Your task to perform on an android device: turn vacation reply on in the gmail app Image 0: 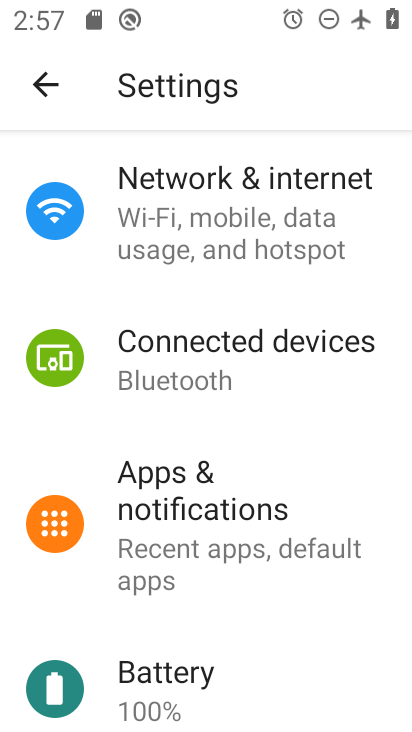
Step 0: press home button
Your task to perform on an android device: turn vacation reply on in the gmail app Image 1: 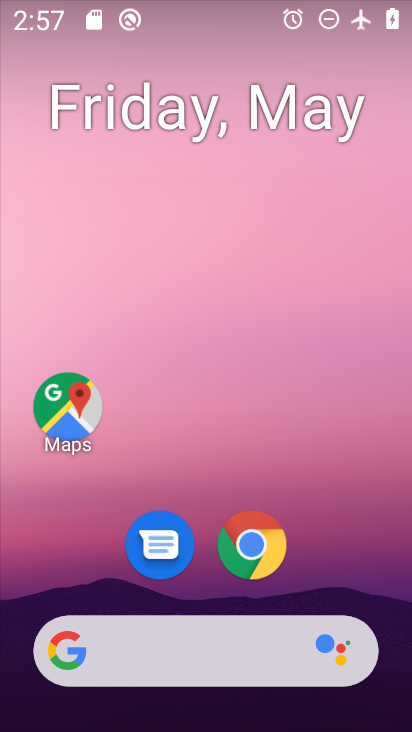
Step 1: drag from (336, 548) to (339, 267)
Your task to perform on an android device: turn vacation reply on in the gmail app Image 2: 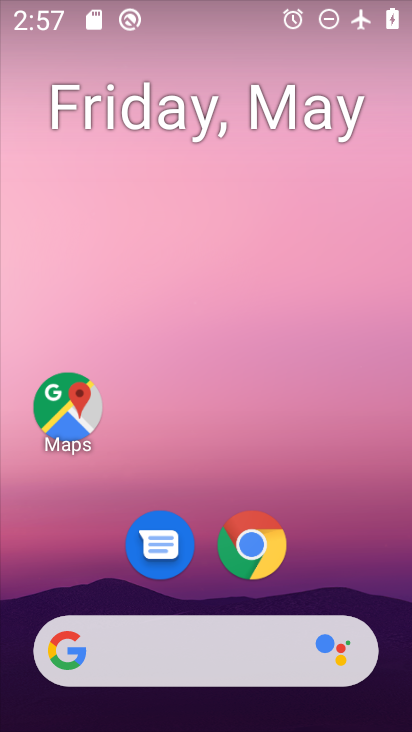
Step 2: drag from (279, 554) to (305, 284)
Your task to perform on an android device: turn vacation reply on in the gmail app Image 3: 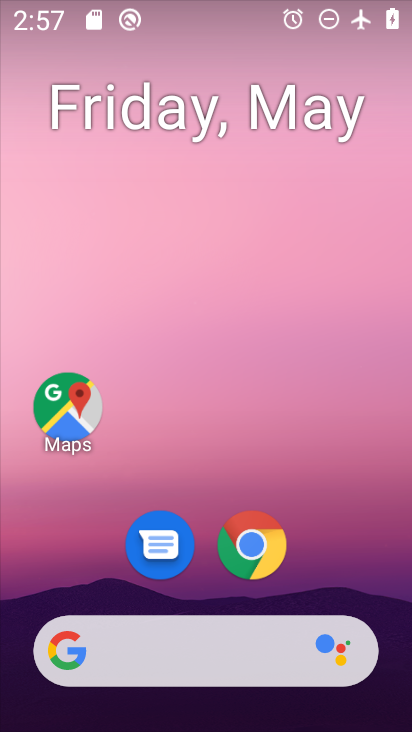
Step 3: drag from (312, 543) to (305, 231)
Your task to perform on an android device: turn vacation reply on in the gmail app Image 4: 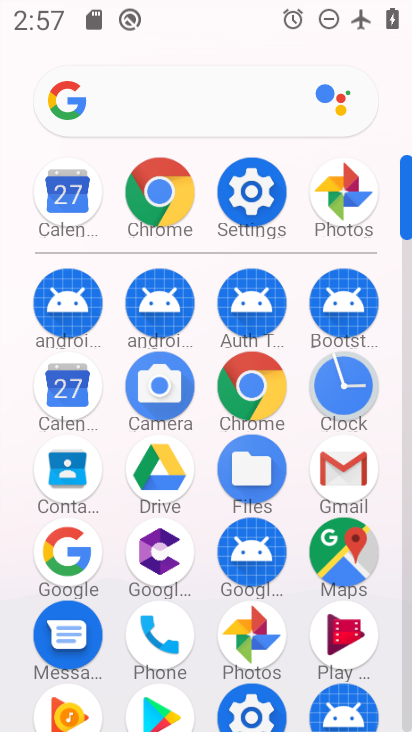
Step 4: click (329, 460)
Your task to perform on an android device: turn vacation reply on in the gmail app Image 5: 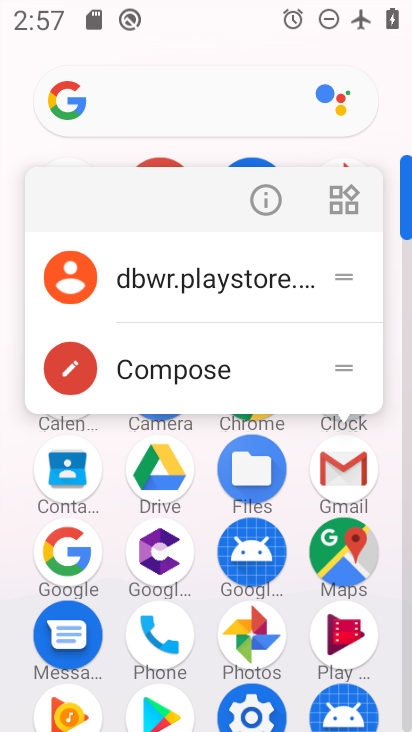
Step 5: click (334, 468)
Your task to perform on an android device: turn vacation reply on in the gmail app Image 6: 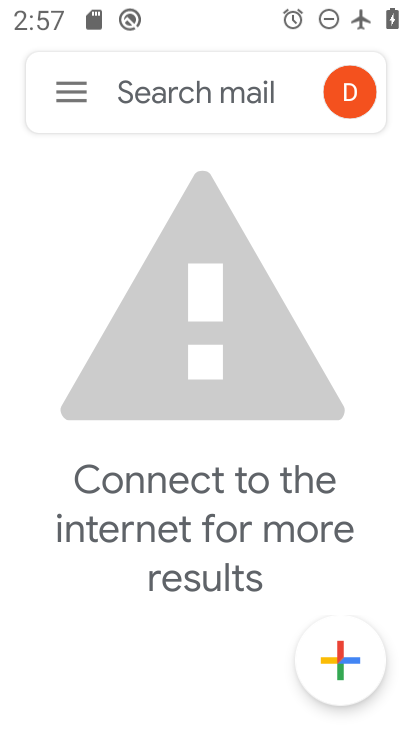
Step 6: click (64, 91)
Your task to perform on an android device: turn vacation reply on in the gmail app Image 7: 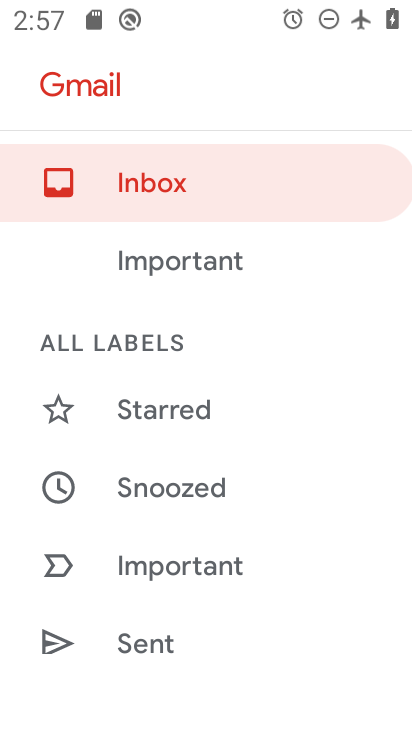
Step 7: drag from (184, 636) to (228, 265)
Your task to perform on an android device: turn vacation reply on in the gmail app Image 8: 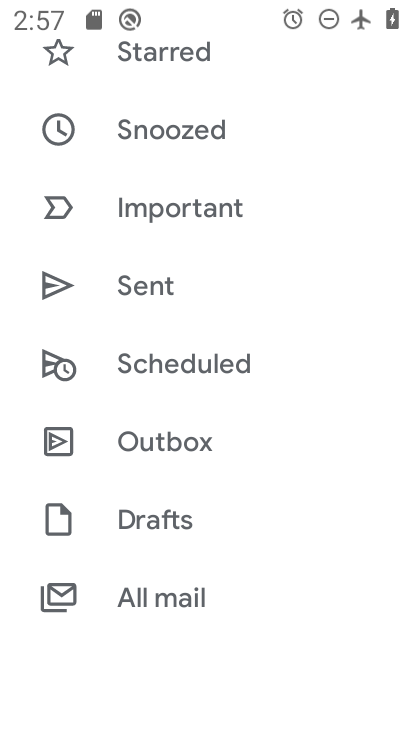
Step 8: drag from (203, 629) to (240, 256)
Your task to perform on an android device: turn vacation reply on in the gmail app Image 9: 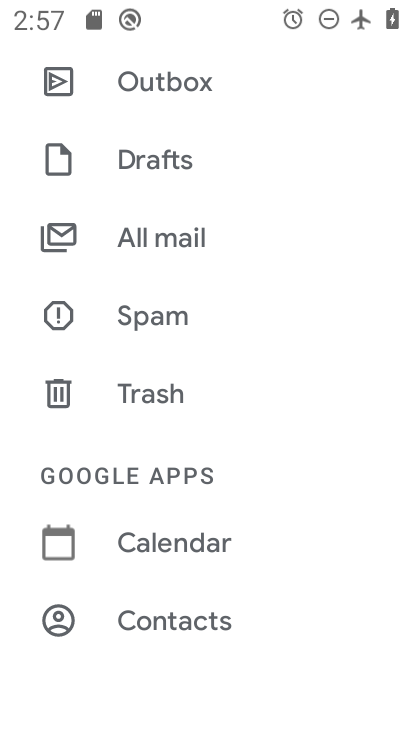
Step 9: drag from (193, 621) to (224, 257)
Your task to perform on an android device: turn vacation reply on in the gmail app Image 10: 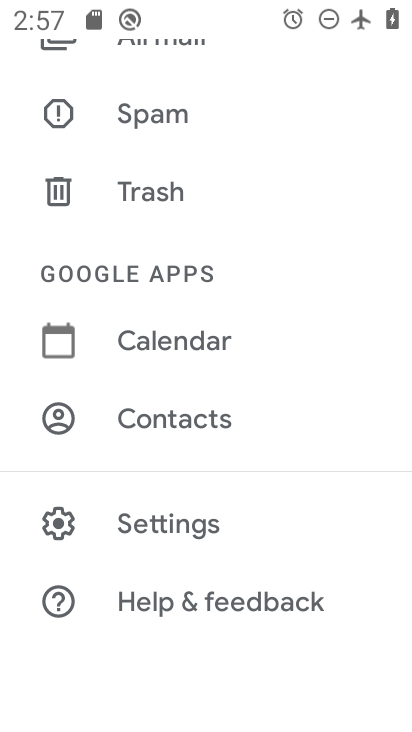
Step 10: click (209, 533)
Your task to perform on an android device: turn vacation reply on in the gmail app Image 11: 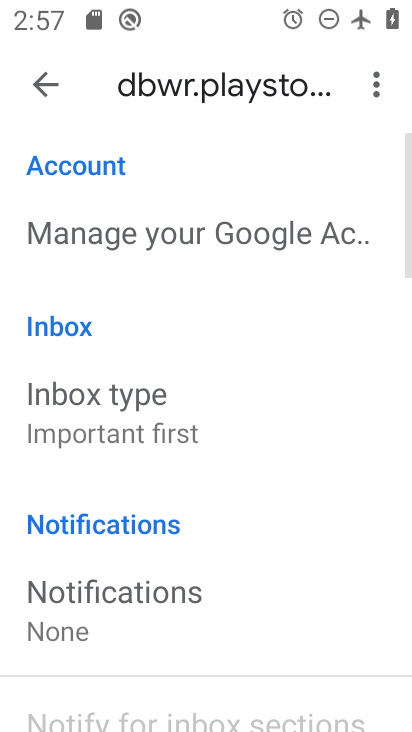
Step 11: drag from (203, 639) to (255, 266)
Your task to perform on an android device: turn vacation reply on in the gmail app Image 12: 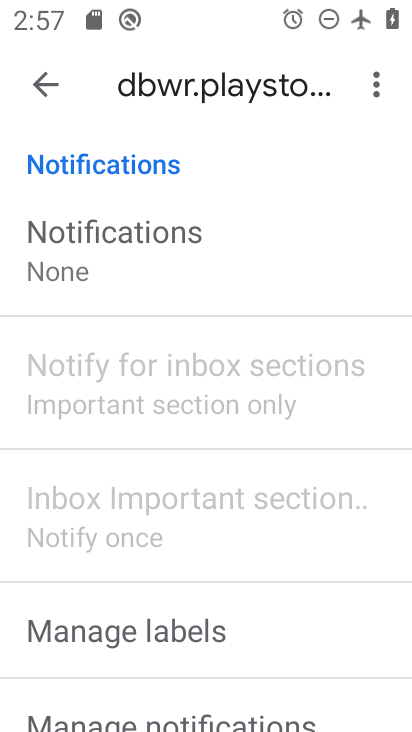
Step 12: drag from (188, 635) to (210, 325)
Your task to perform on an android device: turn vacation reply on in the gmail app Image 13: 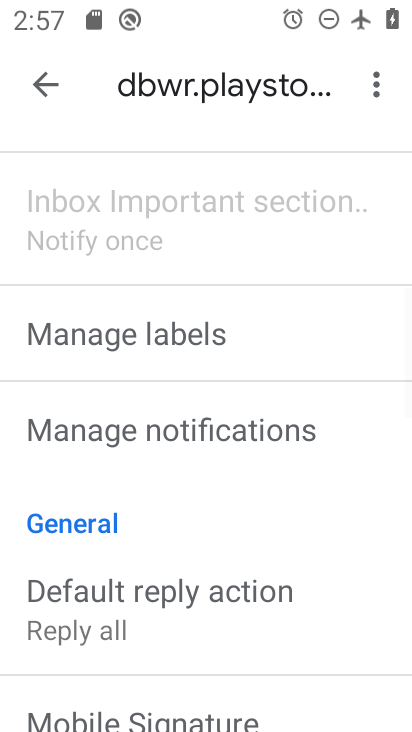
Step 13: drag from (166, 628) to (190, 306)
Your task to perform on an android device: turn vacation reply on in the gmail app Image 14: 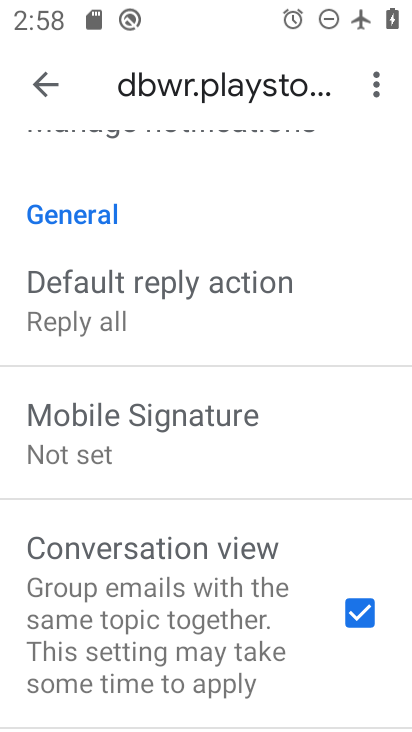
Step 14: drag from (249, 576) to (287, 213)
Your task to perform on an android device: turn vacation reply on in the gmail app Image 15: 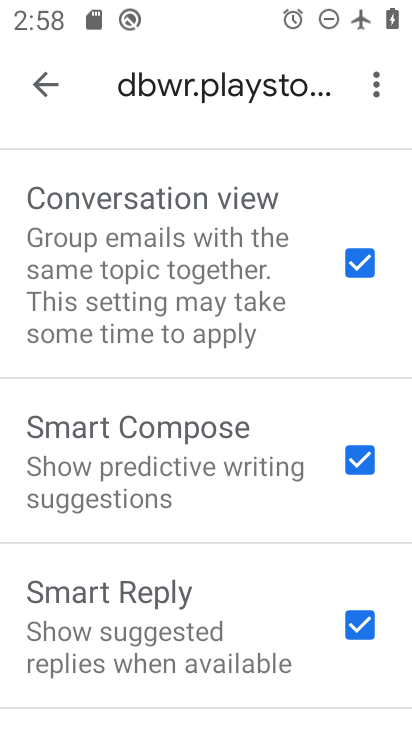
Step 15: drag from (225, 568) to (230, 275)
Your task to perform on an android device: turn vacation reply on in the gmail app Image 16: 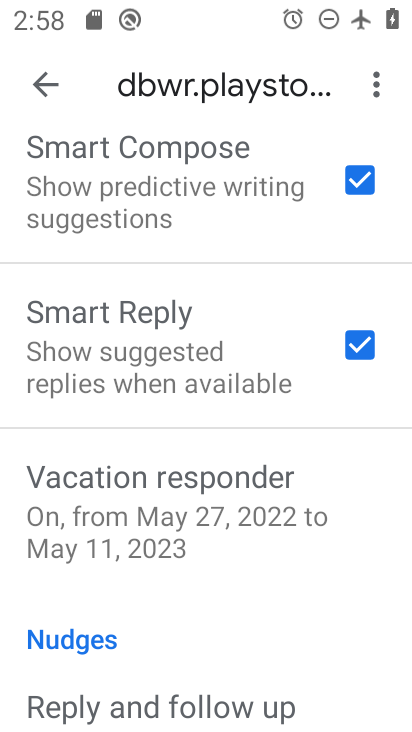
Step 16: drag from (187, 594) to (151, 266)
Your task to perform on an android device: turn vacation reply on in the gmail app Image 17: 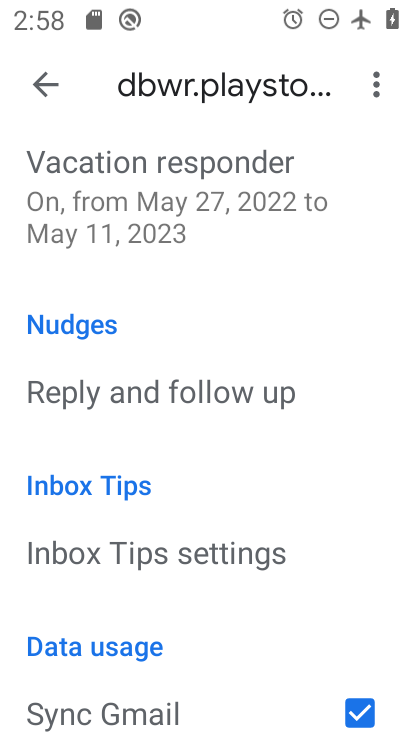
Step 17: drag from (217, 590) to (227, 253)
Your task to perform on an android device: turn vacation reply on in the gmail app Image 18: 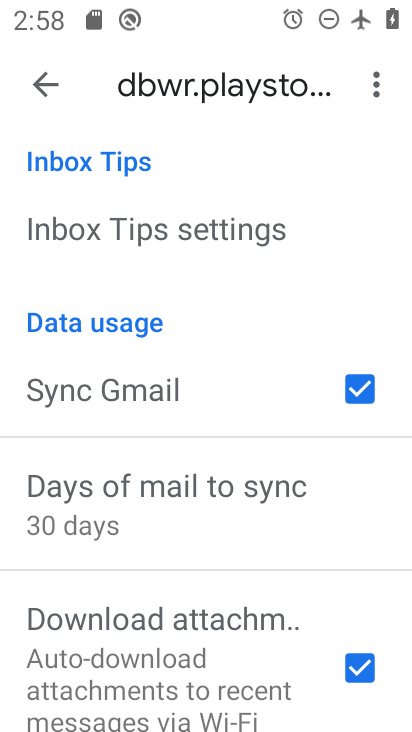
Step 18: drag from (198, 615) to (256, 238)
Your task to perform on an android device: turn vacation reply on in the gmail app Image 19: 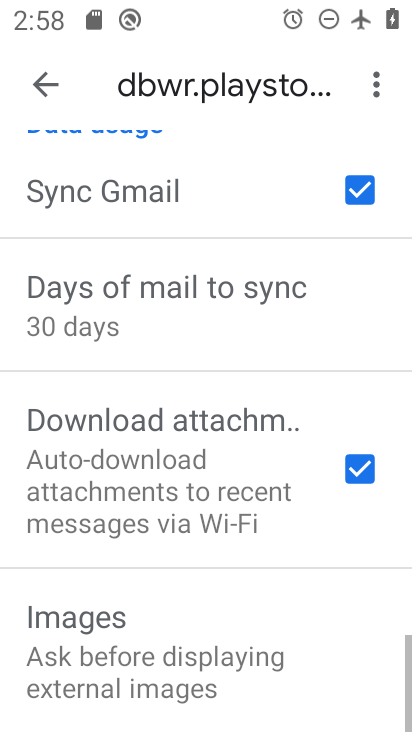
Step 19: drag from (164, 630) to (213, 223)
Your task to perform on an android device: turn vacation reply on in the gmail app Image 20: 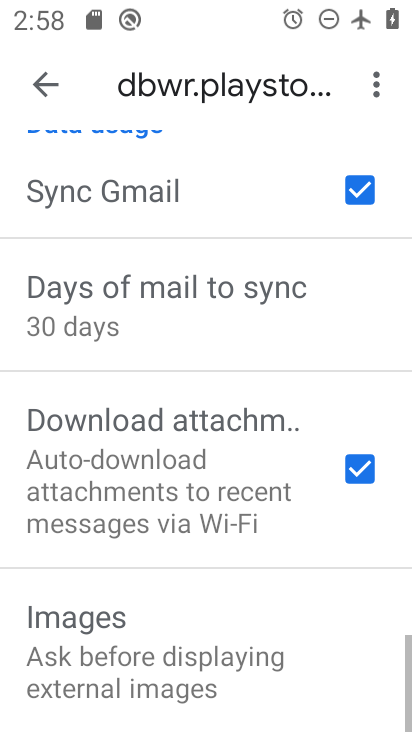
Step 20: drag from (158, 149) to (134, 681)
Your task to perform on an android device: turn vacation reply on in the gmail app Image 21: 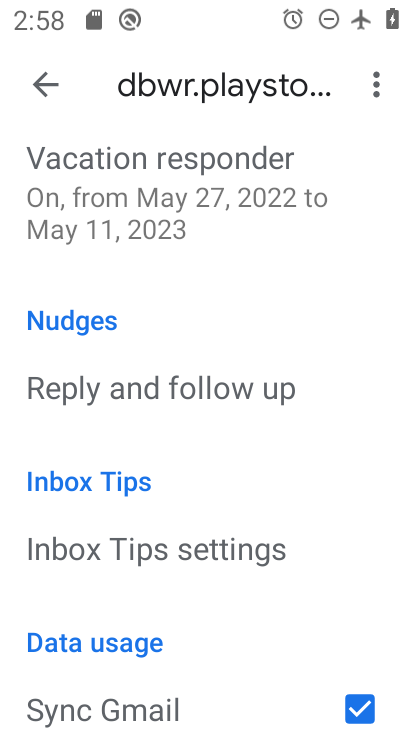
Step 21: click (158, 217)
Your task to perform on an android device: turn vacation reply on in the gmail app Image 22: 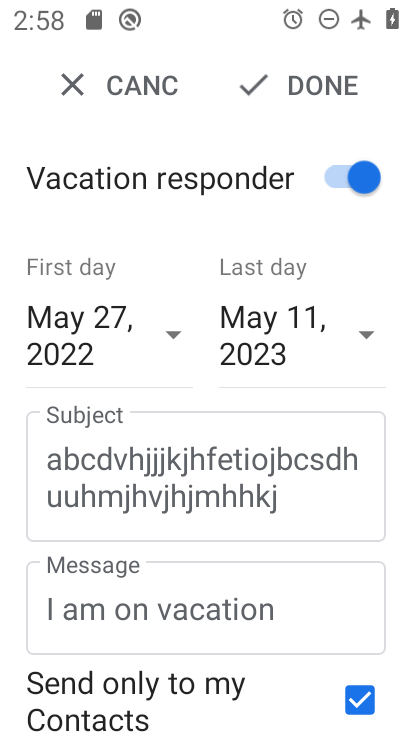
Step 22: click (259, 83)
Your task to perform on an android device: turn vacation reply on in the gmail app Image 23: 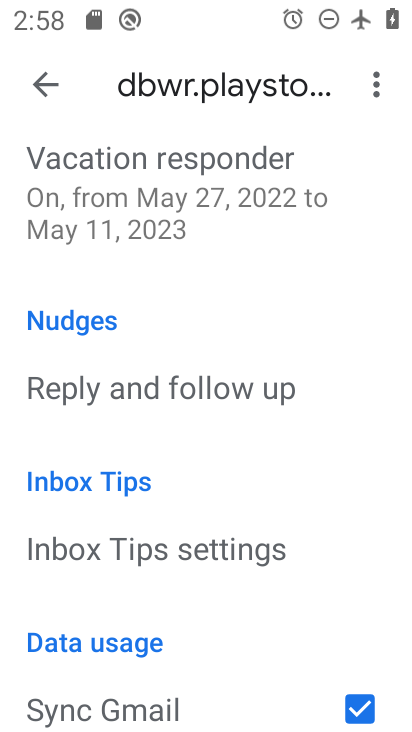
Step 23: task complete